Your task to perform on an android device: set the timer Image 0: 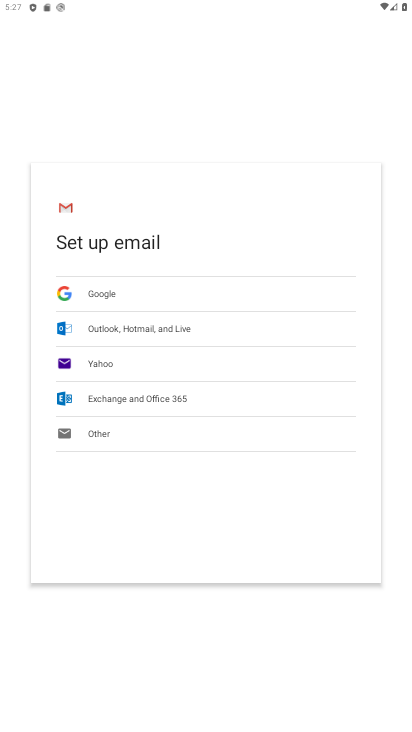
Step 0: press home button
Your task to perform on an android device: set the timer Image 1: 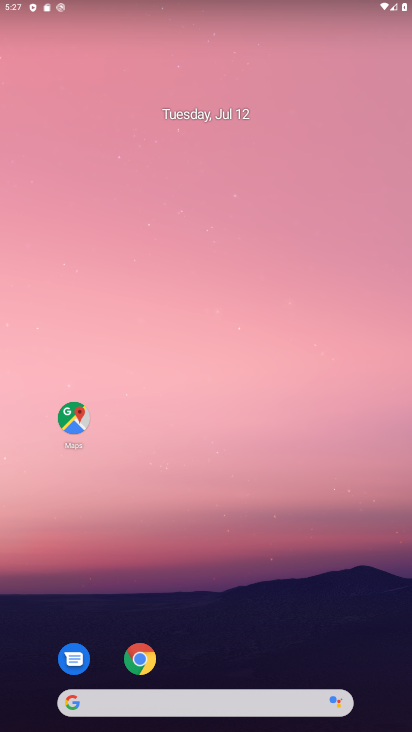
Step 1: drag from (196, 617) to (244, 6)
Your task to perform on an android device: set the timer Image 2: 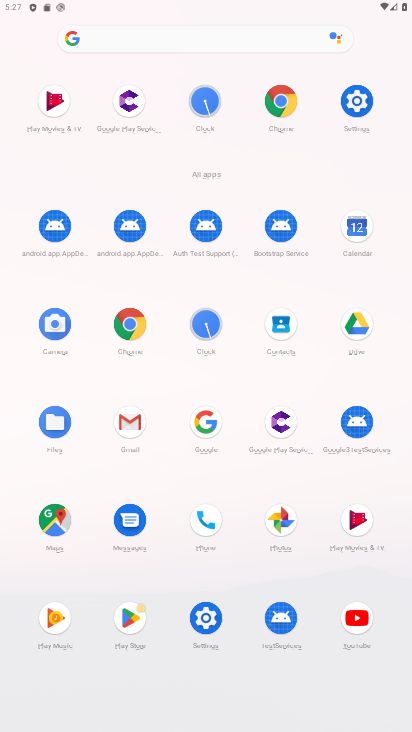
Step 2: click (214, 319)
Your task to perform on an android device: set the timer Image 3: 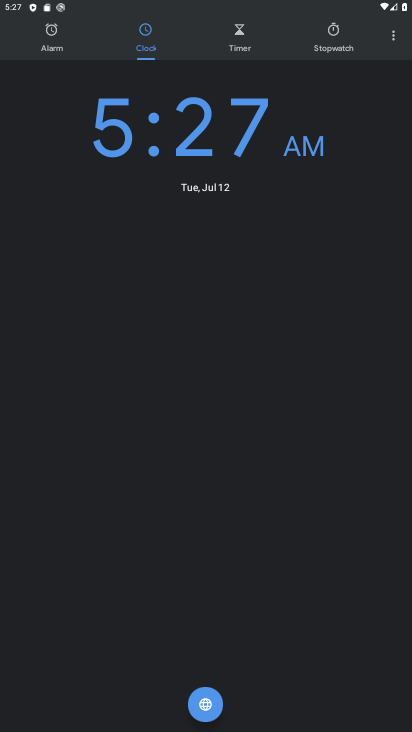
Step 3: click (239, 43)
Your task to perform on an android device: set the timer Image 4: 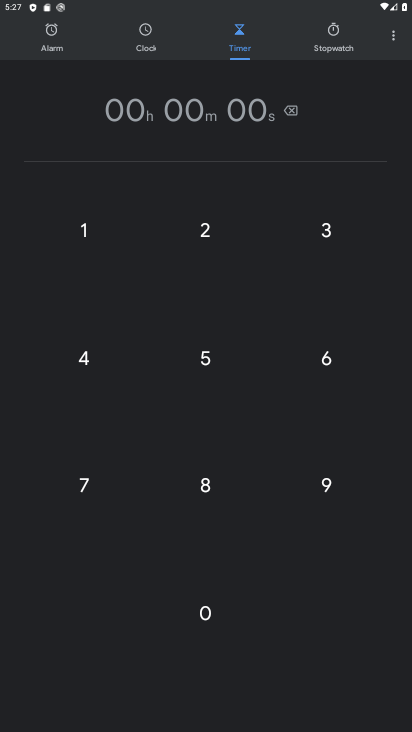
Step 4: click (90, 233)
Your task to perform on an android device: set the timer Image 5: 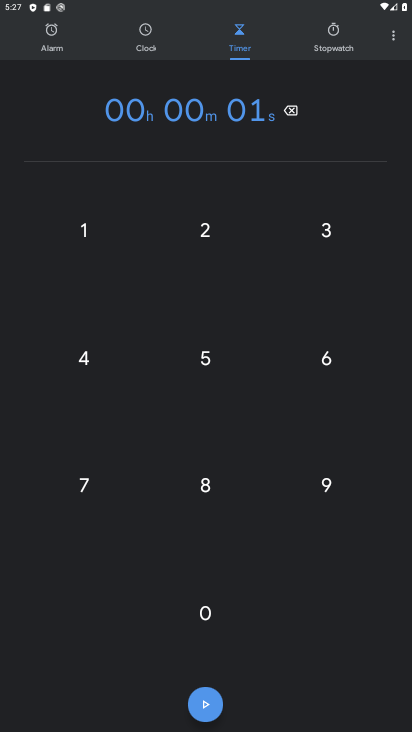
Step 5: click (203, 354)
Your task to perform on an android device: set the timer Image 6: 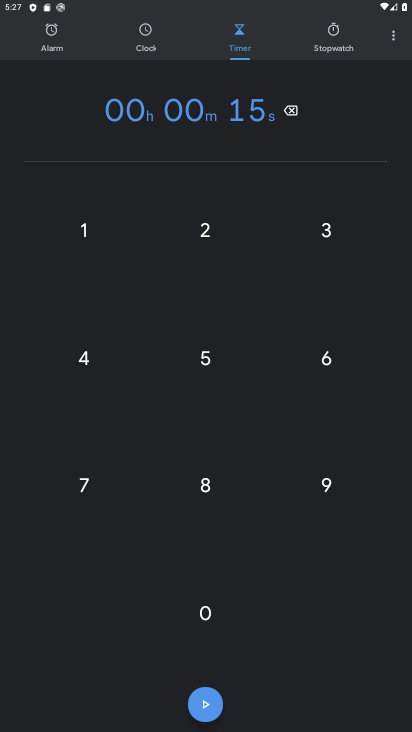
Step 6: click (286, 266)
Your task to perform on an android device: set the timer Image 7: 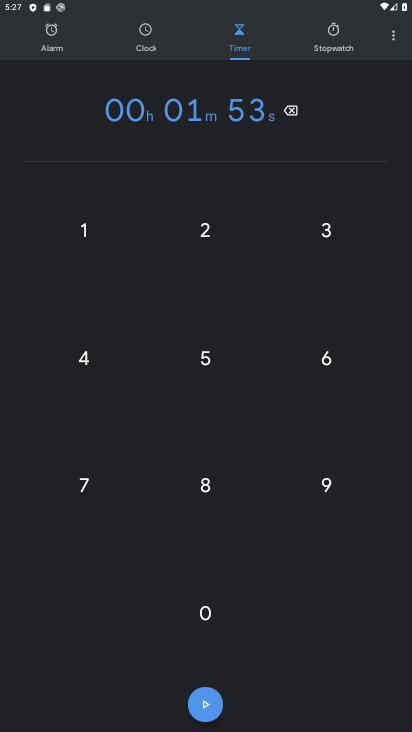
Step 7: click (203, 481)
Your task to perform on an android device: set the timer Image 8: 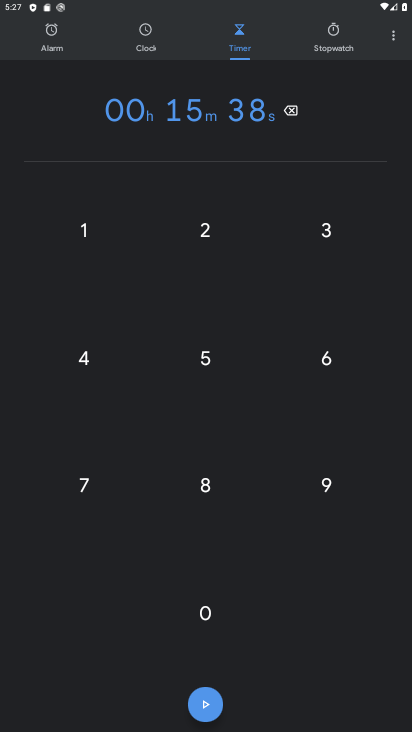
Step 8: click (212, 698)
Your task to perform on an android device: set the timer Image 9: 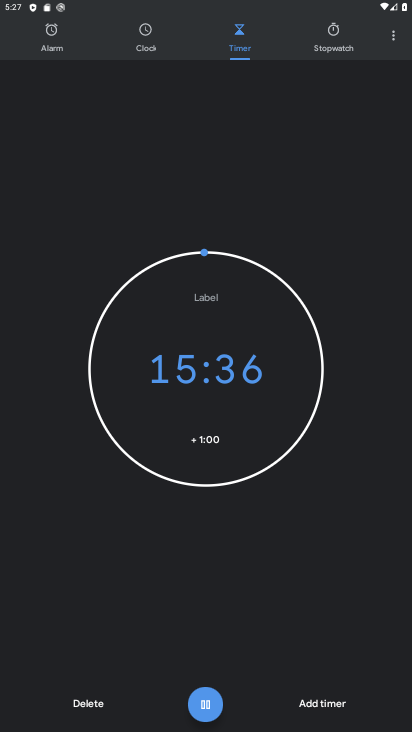
Step 9: task complete